Your task to perform on an android device: Open the phone app and click the voicemail tab. Image 0: 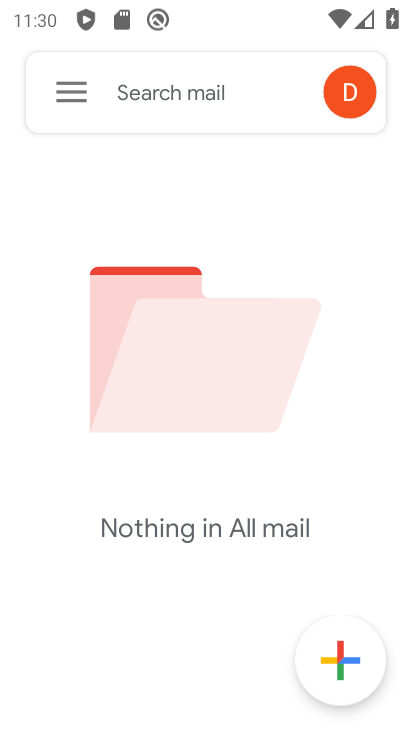
Step 0: press home button
Your task to perform on an android device: Open the phone app and click the voicemail tab. Image 1: 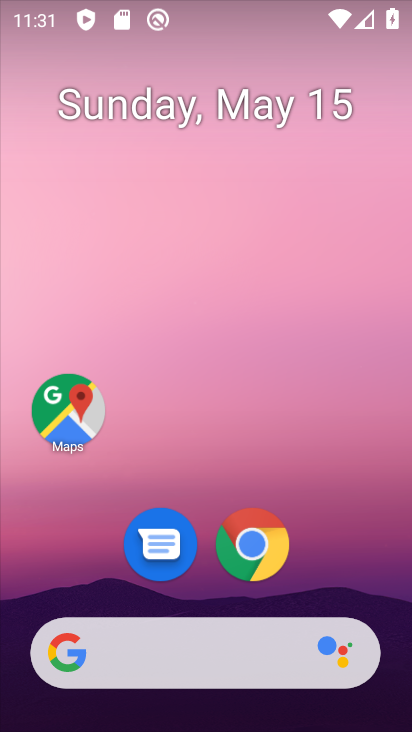
Step 1: drag from (381, 577) to (290, 213)
Your task to perform on an android device: Open the phone app and click the voicemail tab. Image 2: 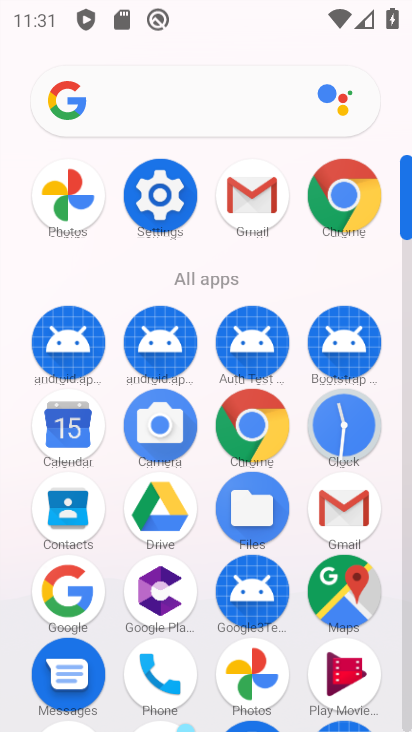
Step 2: click (179, 667)
Your task to perform on an android device: Open the phone app and click the voicemail tab. Image 3: 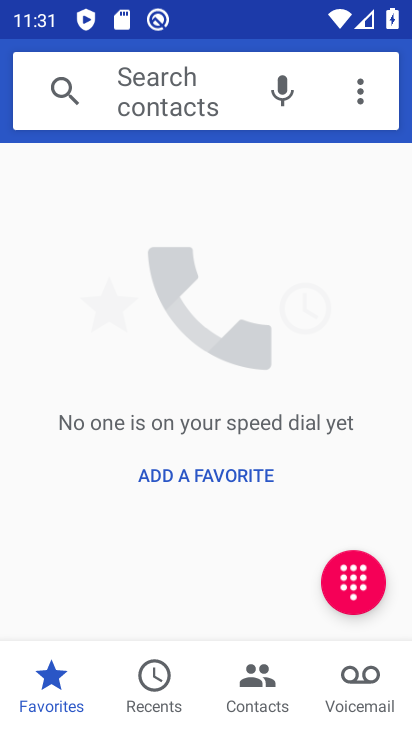
Step 3: click (365, 702)
Your task to perform on an android device: Open the phone app and click the voicemail tab. Image 4: 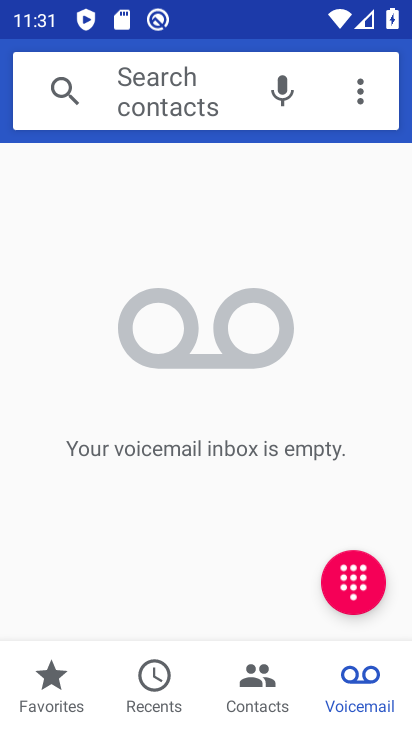
Step 4: task complete